Your task to perform on an android device: Go to Android settings Image 0: 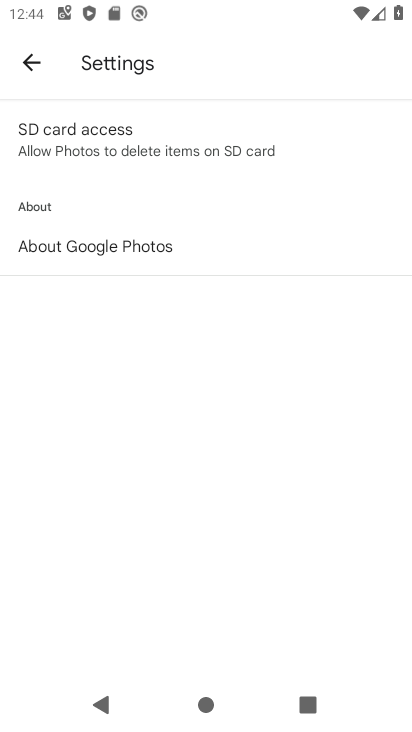
Step 0: press home button
Your task to perform on an android device: Go to Android settings Image 1: 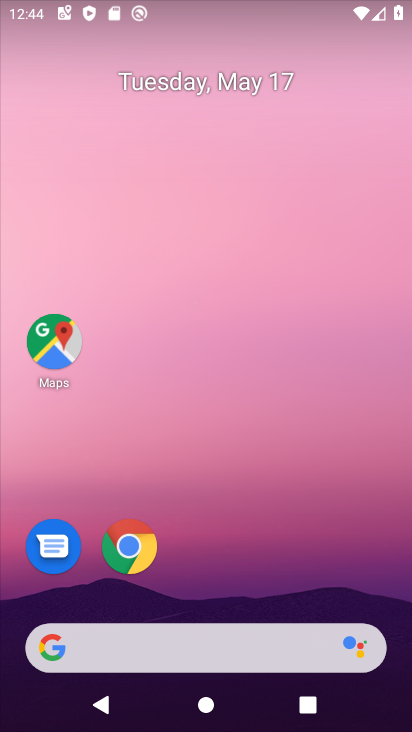
Step 1: drag from (399, 635) to (327, 75)
Your task to perform on an android device: Go to Android settings Image 2: 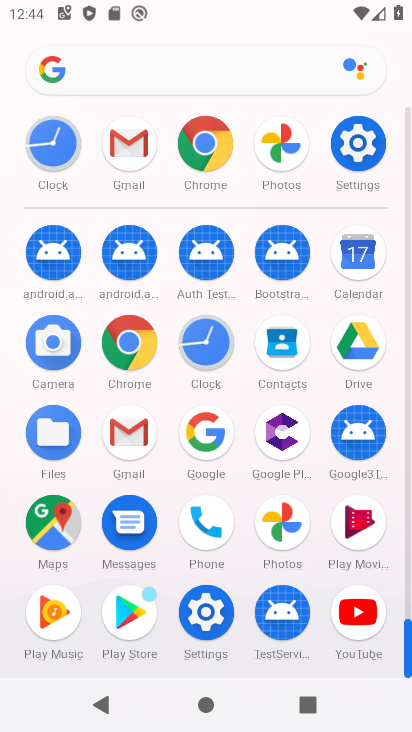
Step 2: click (215, 618)
Your task to perform on an android device: Go to Android settings Image 3: 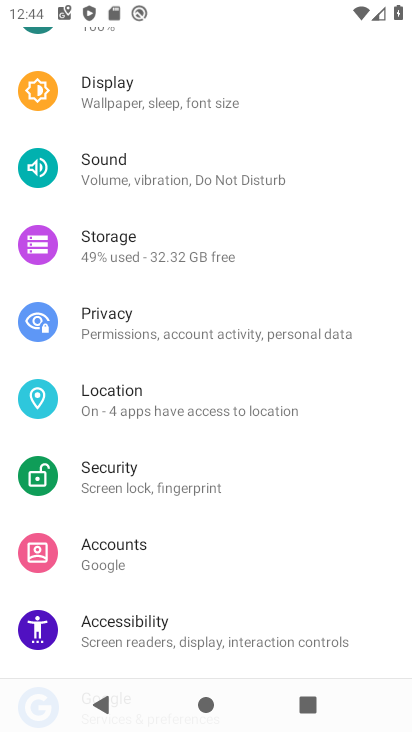
Step 3: drag from (377, 610) to (353, 274)
Your task to perform on an android device: Go to Android settings Image 4: 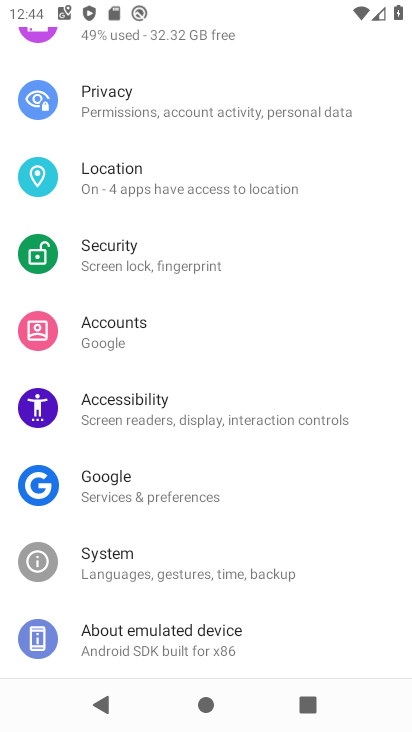
Step 4: click (146, 629)
Your task to perform on an android device: Go to Android settings Image 5: 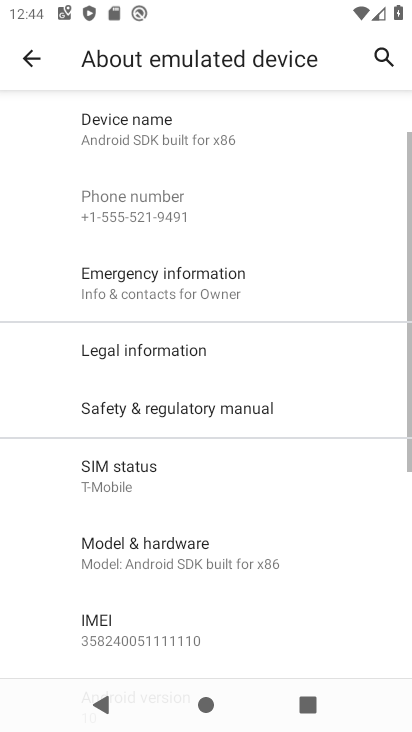
Step 5: task complete